Your task to perform on an android device: toggle notifications settings in the gmail app Image 0: 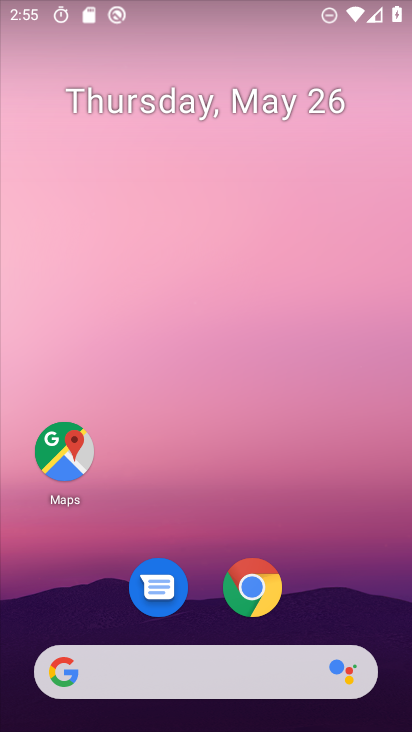
Step 0: drag from (310, 564) to (292, 41)
Your task to perform on an android device: toggle notifications settings in the gmail app Image 1: 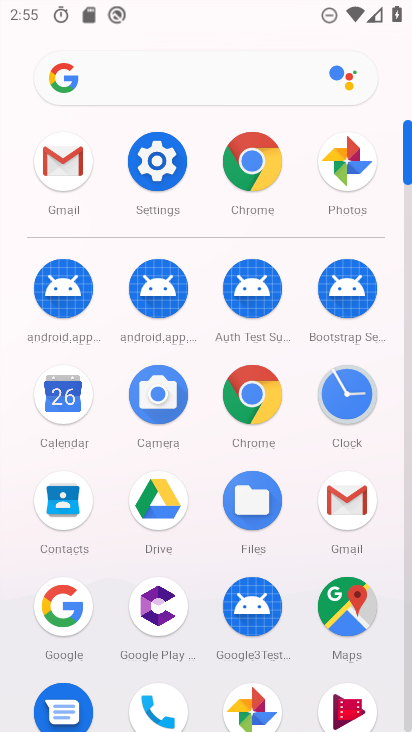
Step 1: click (172, 162)
Your task to perform on an android device: toggle notifications settings in the gmail app Image 2: 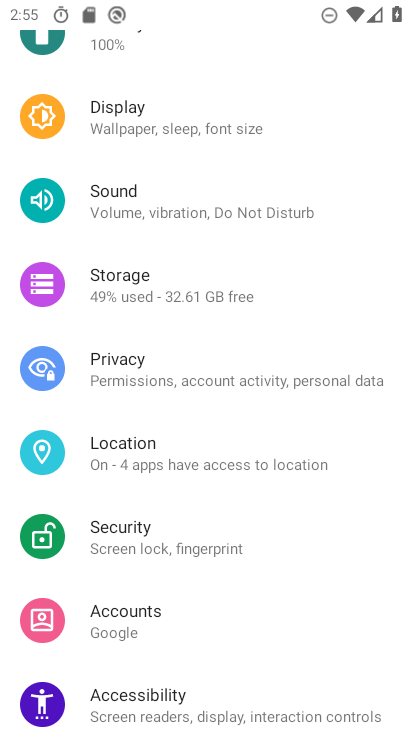
Step 2: drag from (205, 216) to (227, 537)
Your task to perform on an android device: toggle notifications settings in the gmail app Image 3: 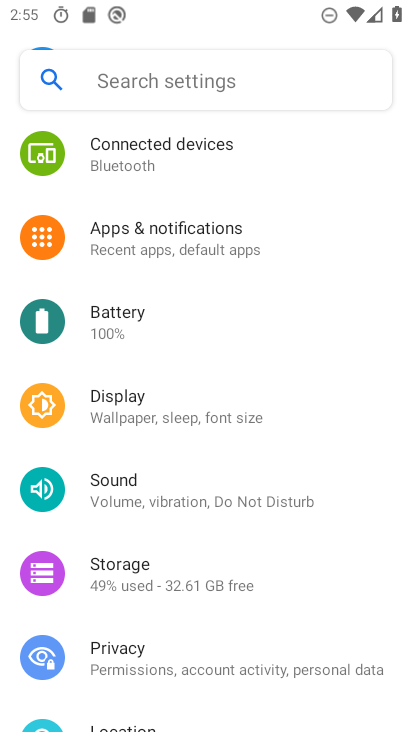
Step 3: click (164, 236)
Your task to perform on an android device: toggle notifications settings in the gmail app Image 4: 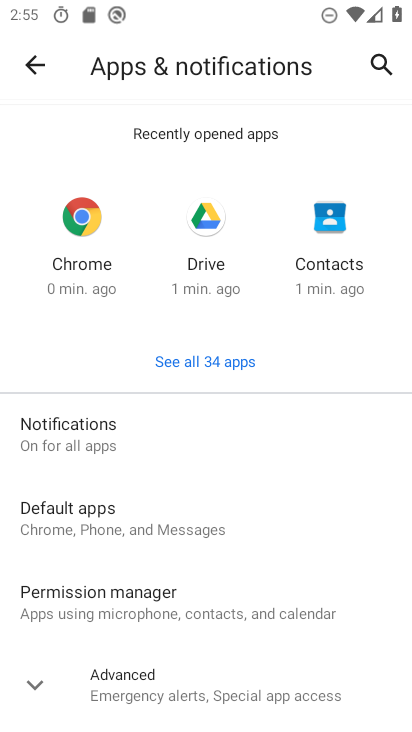
Step 4: drag from (241, 510) to (250, 209)
Your task to perform on an android device: toggle notifications settings in the gmail app Image 5: 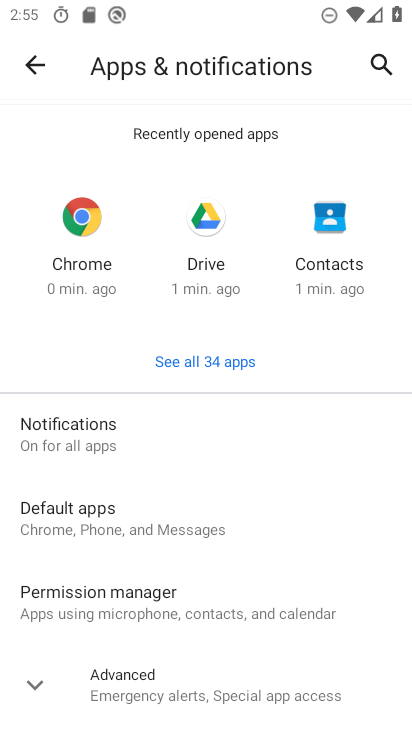
Step 5: click (91, 434)
Your task to perform on an android device: toggle notifications settings in the gmail app Image 6: 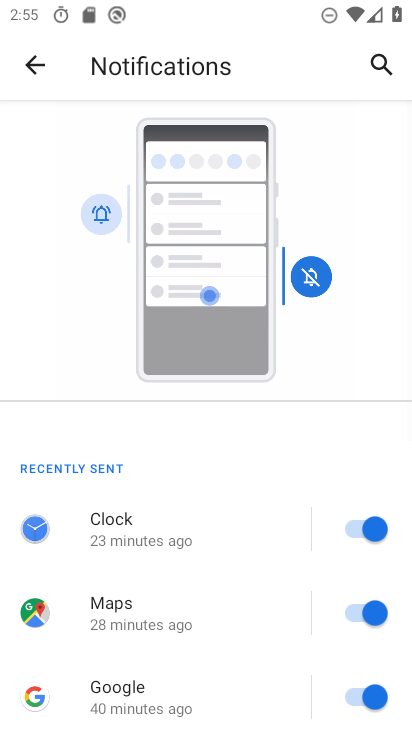
Step 6: task complete